Your task to perform on an android device: Is it going to rain today? Image 0: 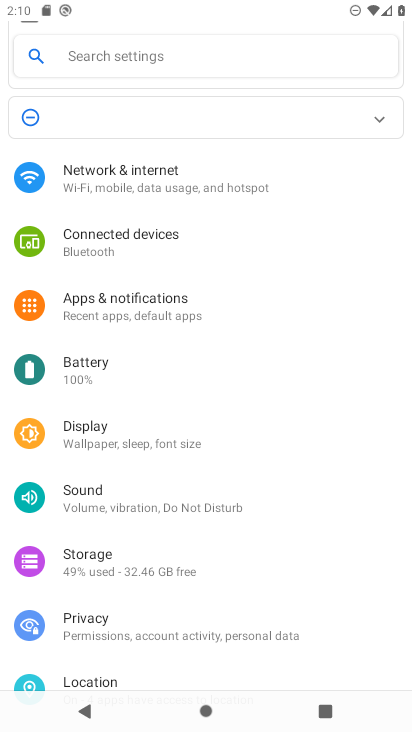
Step 0: press home button
Your task to perform on an android device: Is it going to rain today? Image 1: 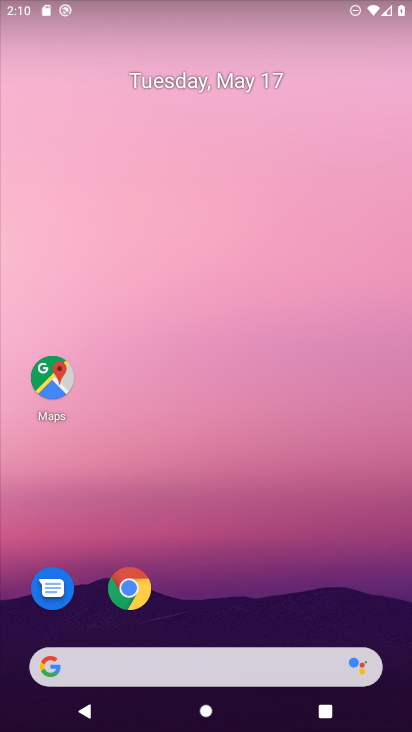
Step 1: click (140, 590)
Your task to perform on an android device: Is it going to rain today? Image 2: 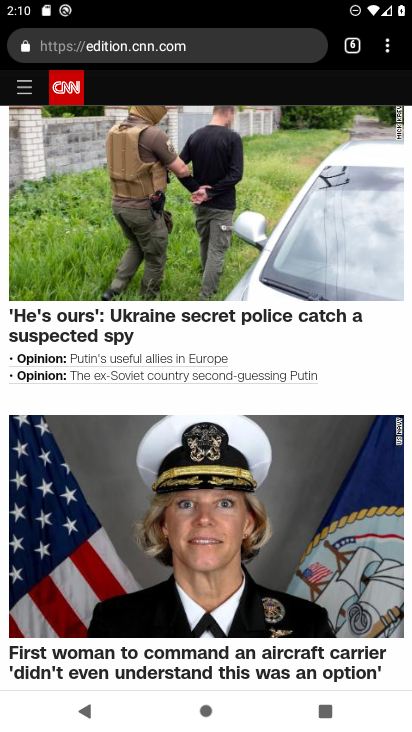
Step 2: click (356, 39)
Your task to perform on an android device: Is it going to rain today? Image 3: 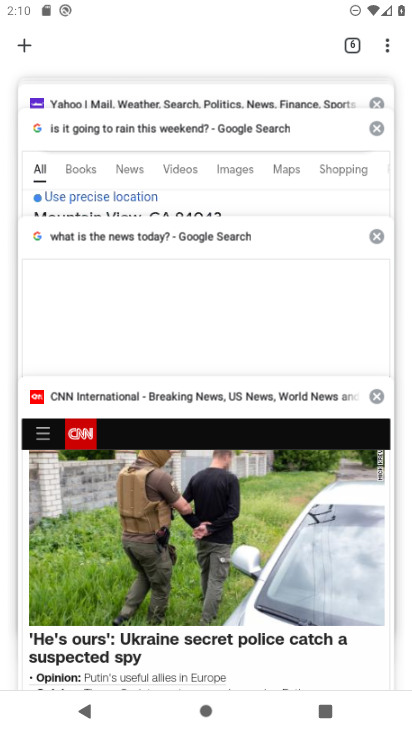
Step 3: drag from (48, 97) to (63, 291)
Your task to perform on an android device: Is it going to rain today? Image 4: 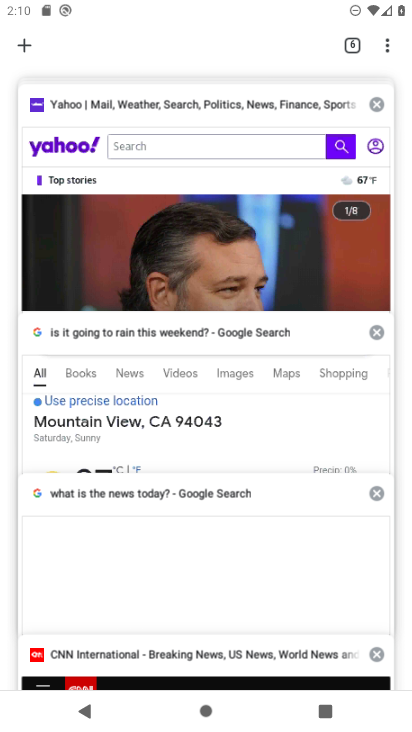
Step 4: drag from (135, 117) to (150, 510)
Your task to perform on an android device: Is it going to rain today? Image 5: 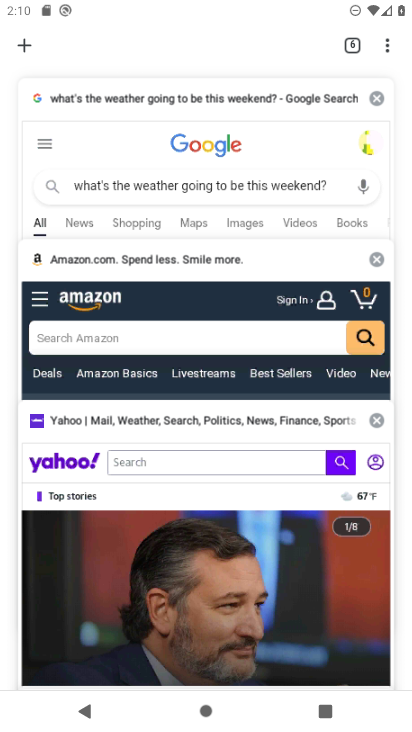
Step 5: drag from (170, 443) to (200, 59)
Your task to perform on an android device: Is it going to rain today? Image 6: 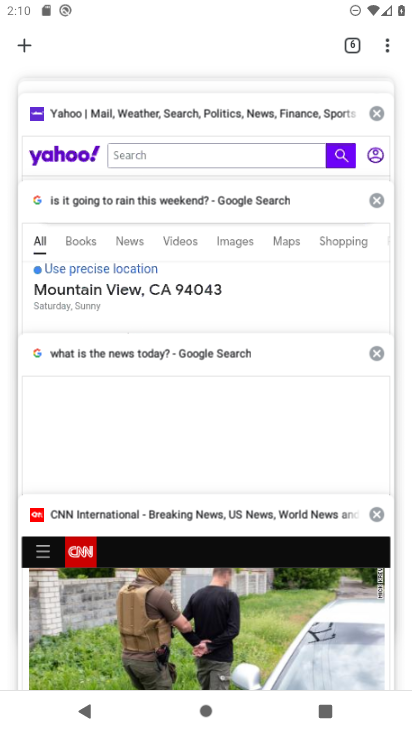
Step 6: click (26, 40)
Your task to perform on an android device: Is it going to rain today? Image 7: 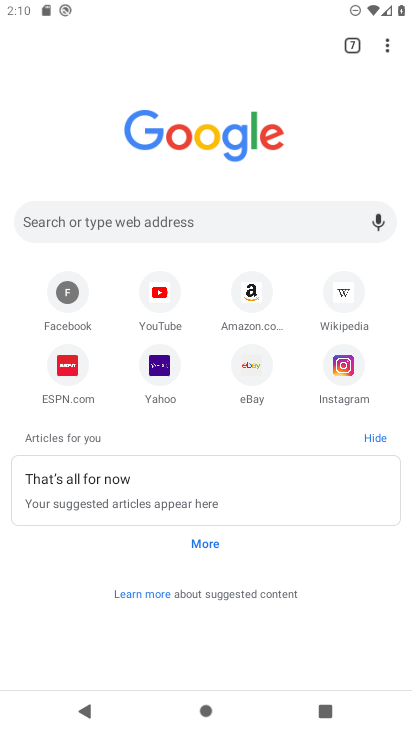
Step 7: click (146, 225)
Your task to perform on an android device: Is it going to rain today? Image 8: 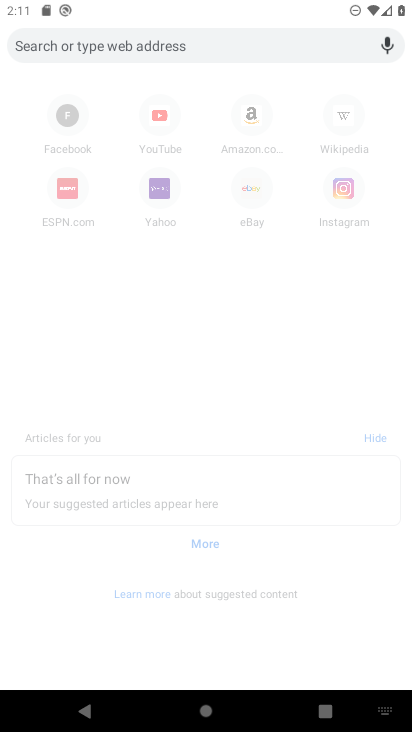
Step 8: type "is it going to rain today?"
Your task to perform on an android device: Is it going to rain today? Image 9: 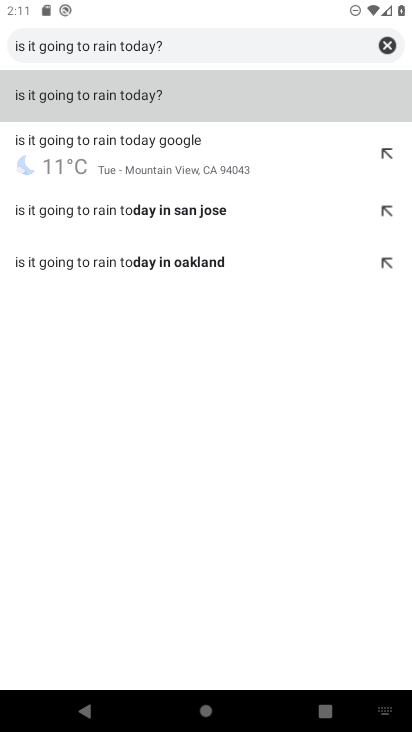
Step 9: click (220, 98)
Your task to perform on an android device: Is it going to rain today? Image 10: 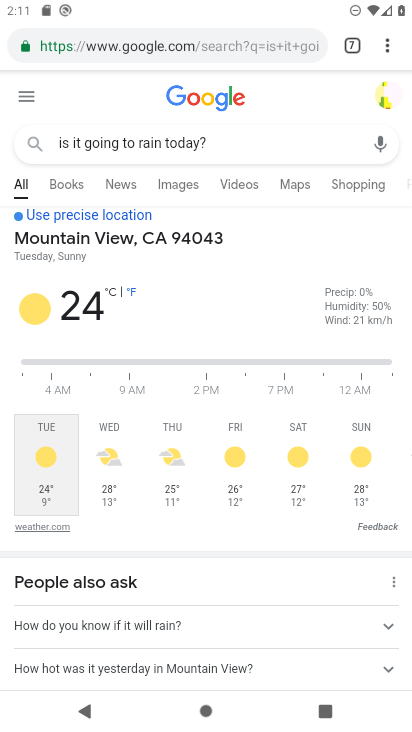
Step 10: task complete